Your task to perform on an android device: Search for Italian restaurants on Maps Image 0: 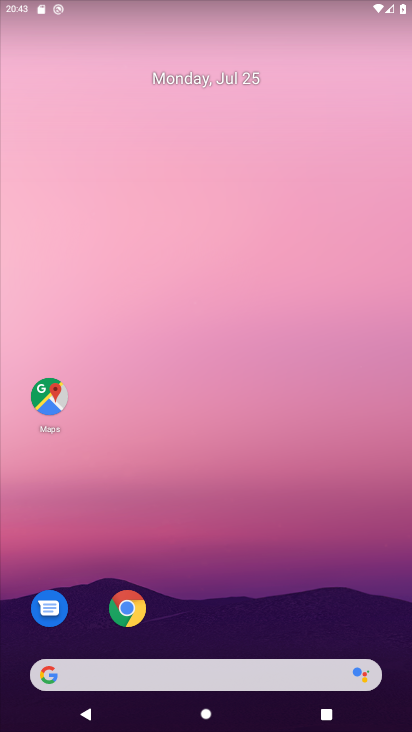
Step 0: click (48, 398)
Your task to perform on an android device: Search for Italian restaurants on Maps Image 1: 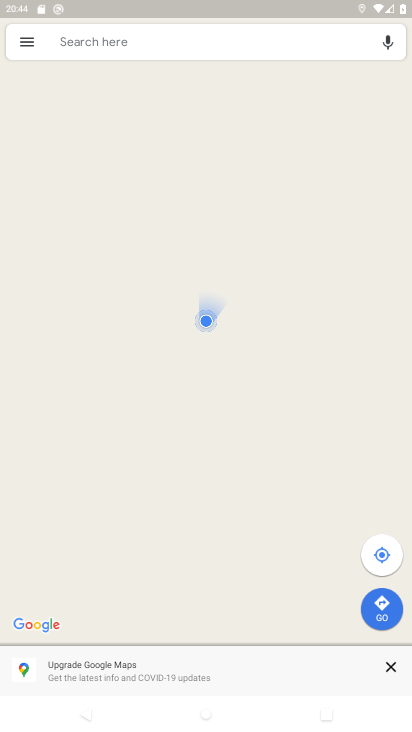
Step 1: click (84, 38)
Your task to perform on an android device: Search for Italian restaurants on Maps Image 2: 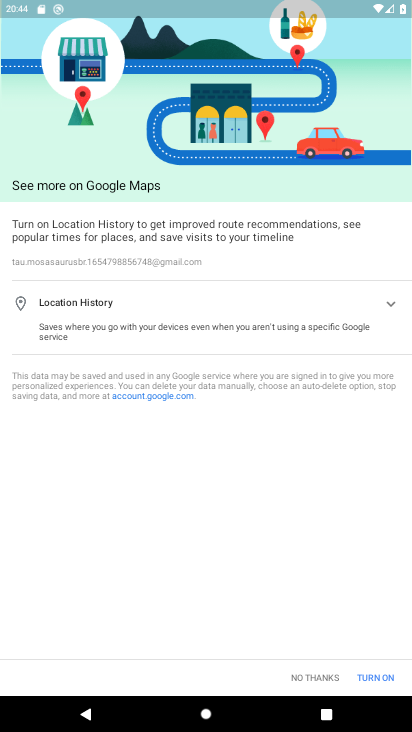
Step 2: click (301, 678)
Your task to perform on an android device: Search for Italian restaurants on Maps Image 3: 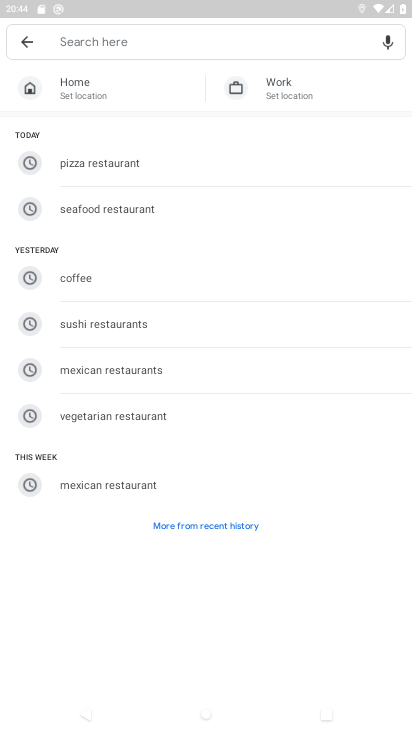
Step 3: click (98, 35)
Your task to perform on an android device: Search for Italian restaurants on Maps Image 4: 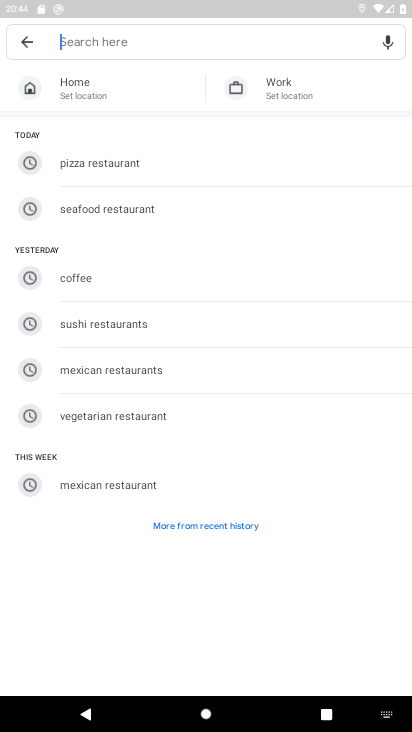
Step 4: type "italian restaurants"
Your task to perform on an android device: Search for Italian restaurants on Maps Image 5: 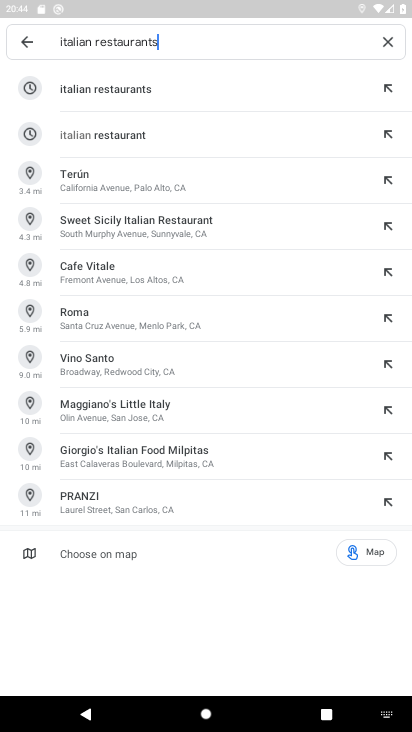
Step 5: click (180, 74)
Your task to perform on an android device: Search for Italian restaurants on Maps Image 6: 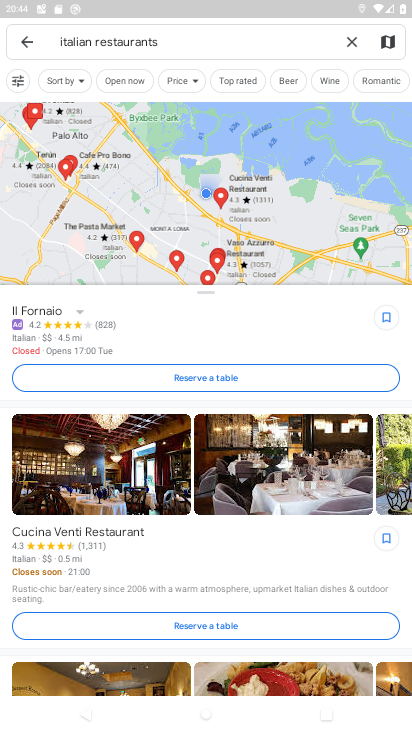
Step 6: task complete